Your task to perform on an android device: Open location settings Image 0: 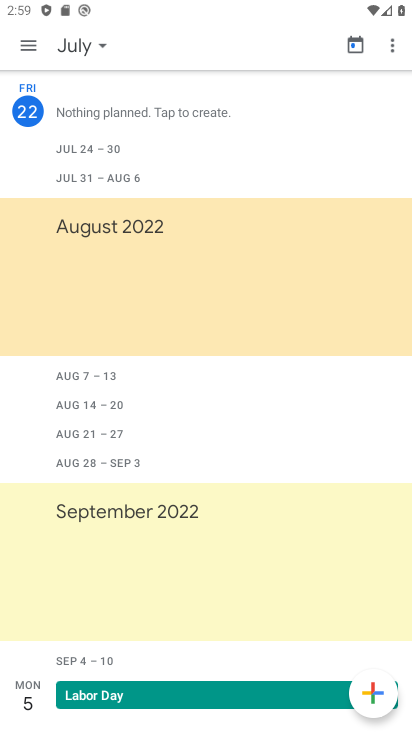
Step 0: press home button
Your task to perform on an android device: Open location settings Image 1: 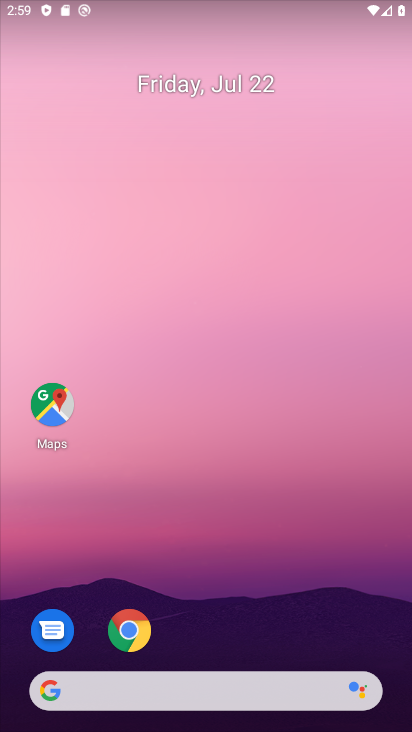
Step 1: drag from (189, 673) to (79, 15)
Your task to perform on an android device: Open location settings Image 2: 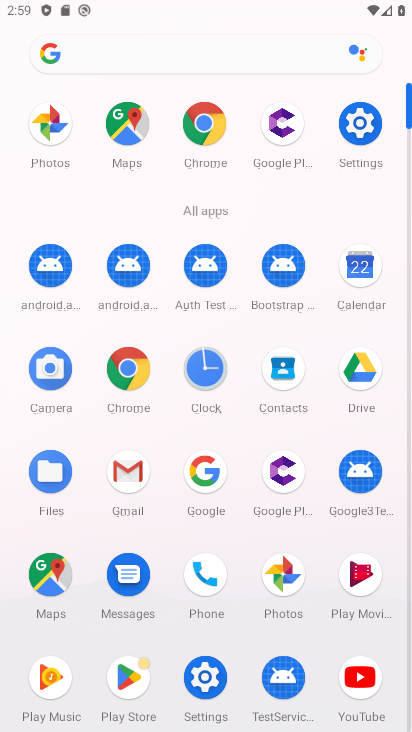
Step 2: click (357, 123)
Your task to perform on an android device: Open location settings Image 3: 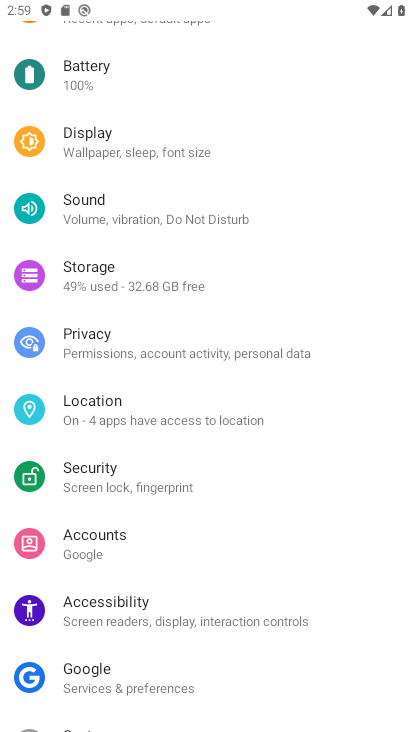
Step 3: click (86, 422)
Your task to perform on an android device: Open location settings Image 4: 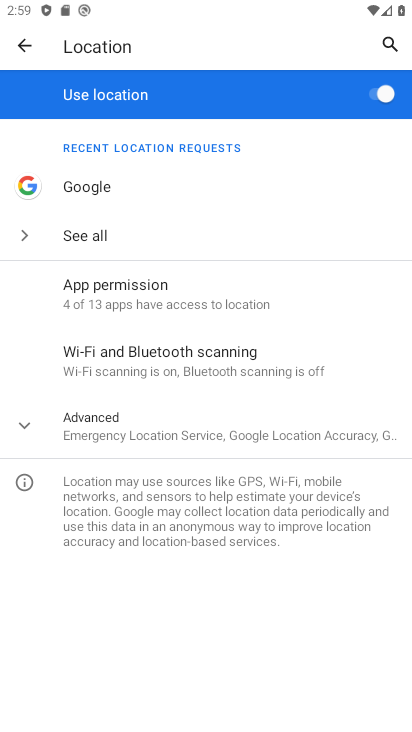
Step 4: task complete